Your task to perform on an android device: turn on showing notifications on the lock screen Image 0: 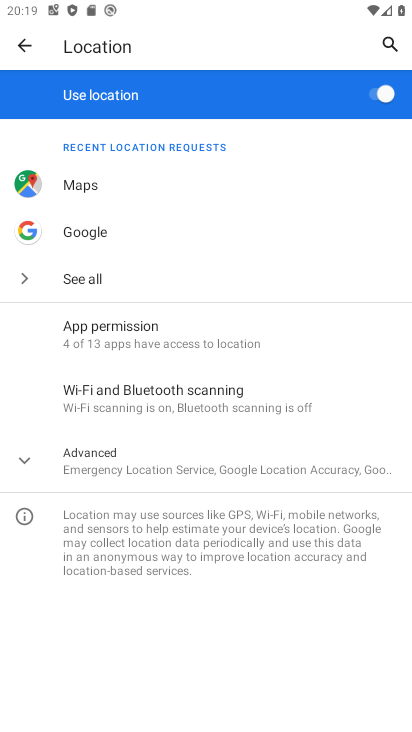
Step 0: press home button
Your task to perform on an android device: turn on showing notifications on the lock screen Image 1: 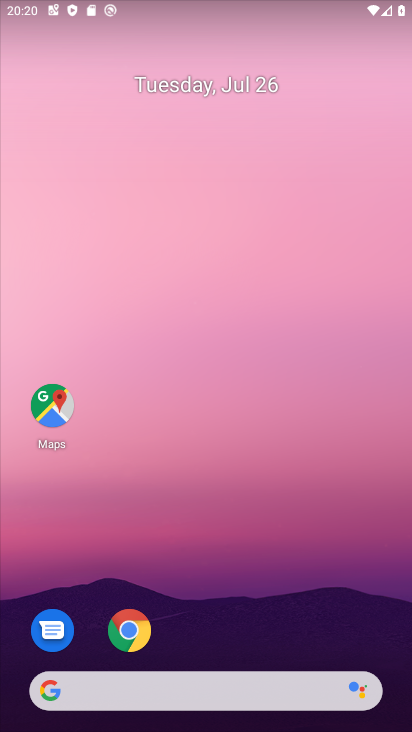
Step 1: drag from (372, 577) to (375, 132)
Your task to perform on an android device: turn on showing notifications on the lock screen Image 2: 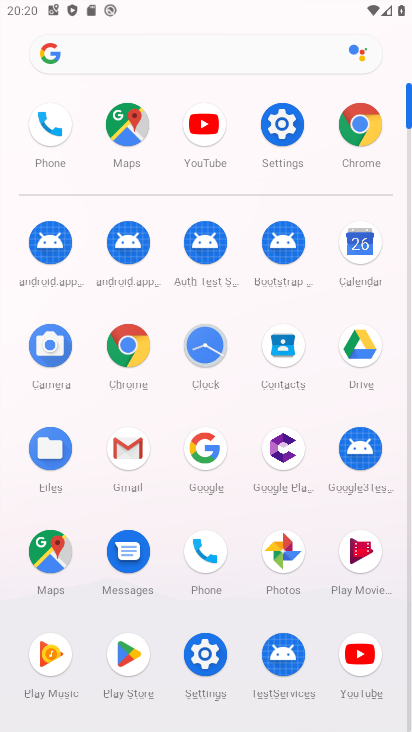
Step 2: click (283, 131)
Your task to perform on an android device: turn on showing notifications on the lock screen Image 3: 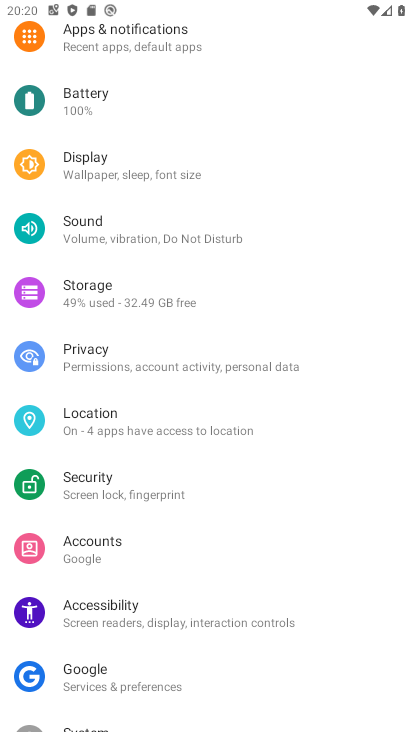
Step 3: drag from (320, 199) to (316, 255)
Your task to perform on an android device: turn on showing notifications on the lock screen Image 4: 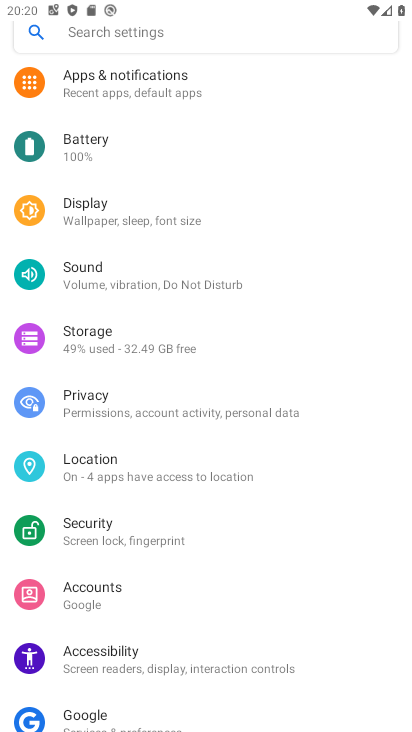
Step 4: drag from (322, 202) to (327, 263)
Your task to perform on an android device: turn on showing notifications on the lock screen Image 5: 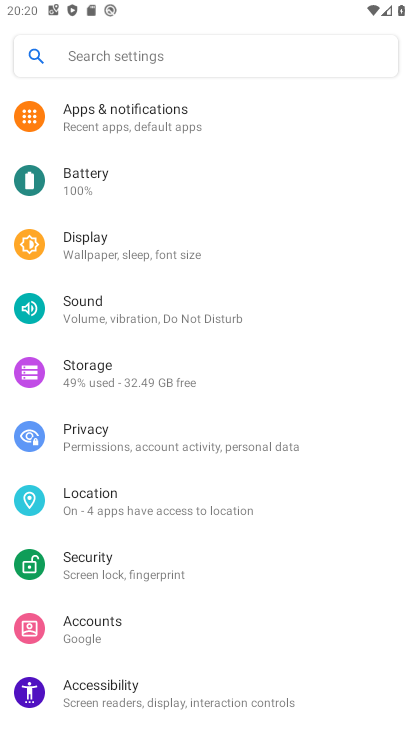
Step 5: drag from (326, 159) to (326, 247)
Your task to perform on an android device: turn on showing notifications on the lock screen Image 6: 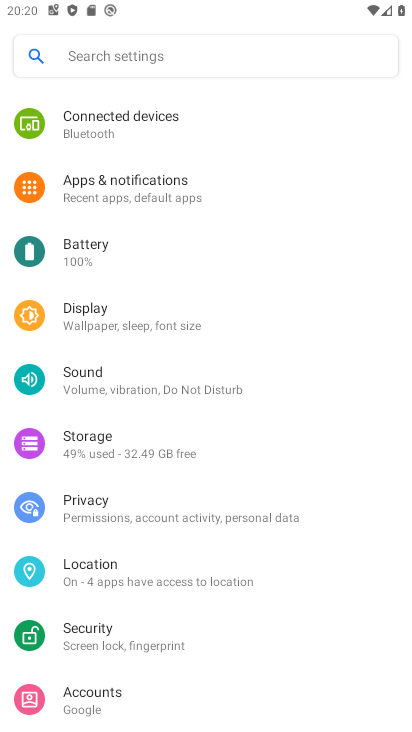
Step 6: drag from (311, 132) to (312, 376)
Your task to perform on an android device: turn on showing notifications on the lock screen Image 7: 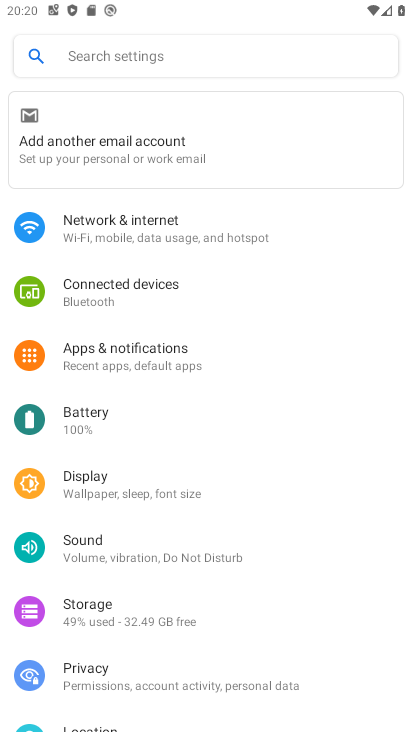
Step 7: click (253, 367)
Your task to perform on an android device: turn on showing notifications on the lock screen Image 8: 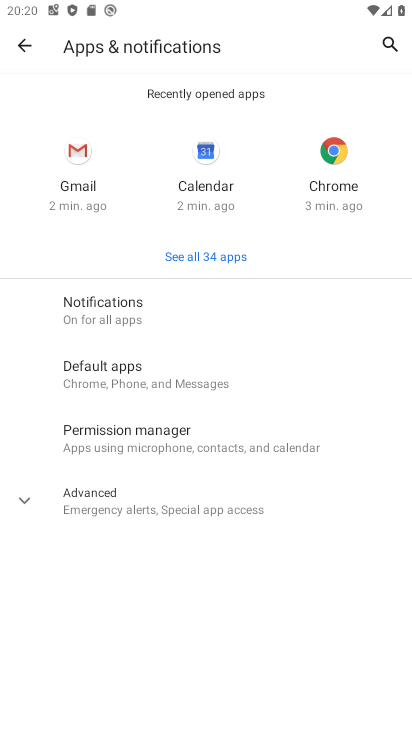
Step 8: click (180, 321)
Your task to perform on an android device: turn on showing notifications on the lock screen Image 9: 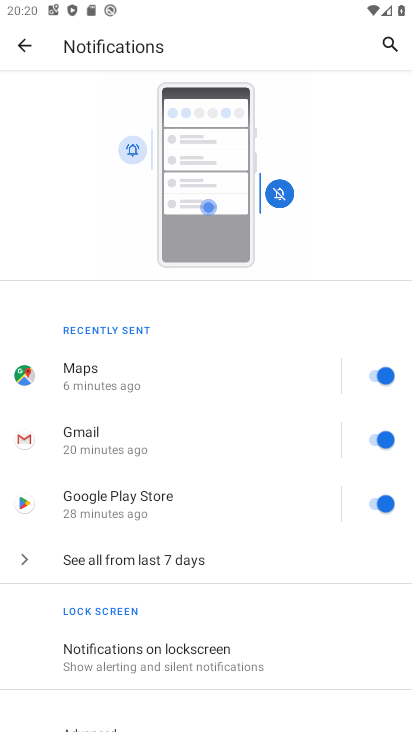
Step 9: click (170, 661)
Your task to perform on an android device: turn on showing notifications on the lock screen Image 10: 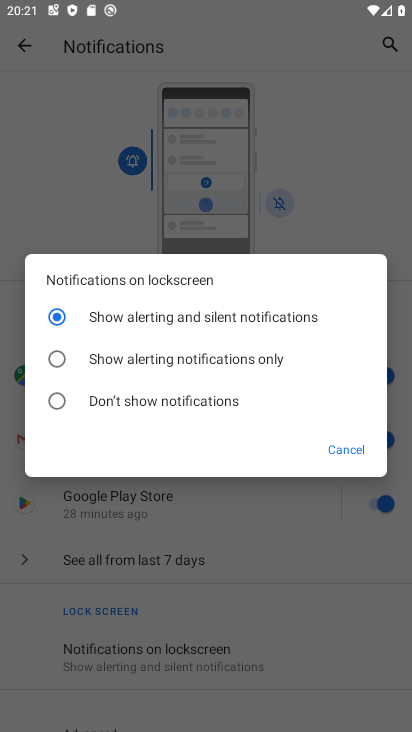
Step 10: task complete